Your task to perform on an android device: install app "Airtel Thanks" Image 0: 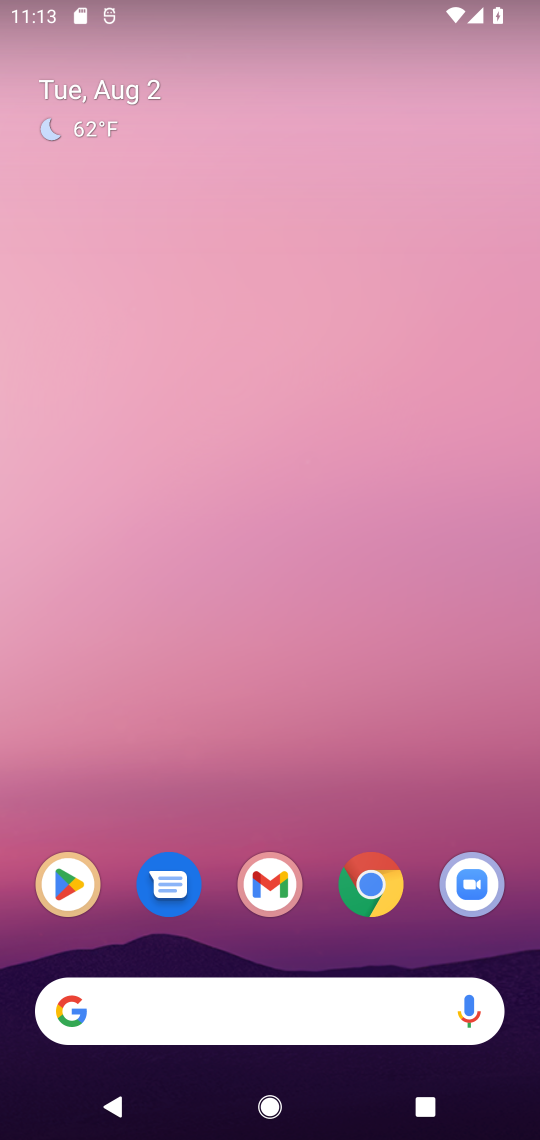
Step 0: click (73, 883)
Your task to perform on an android device: install app "Airtel Thanks" Image 1: 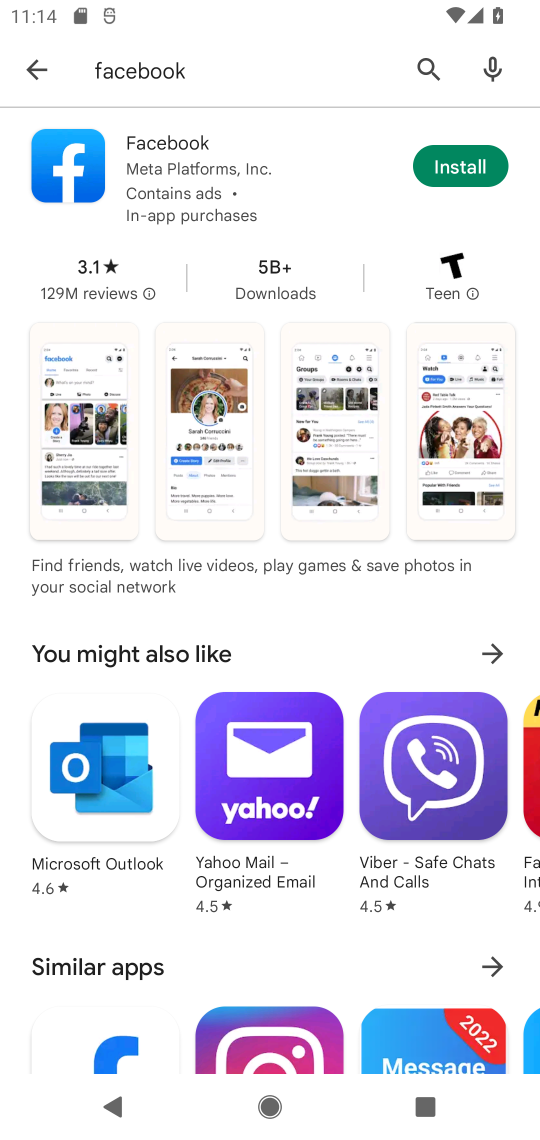
Step 1: click (223, 57)
Your task to perform on an android device: install app "Airtel Thanks" Image 2: 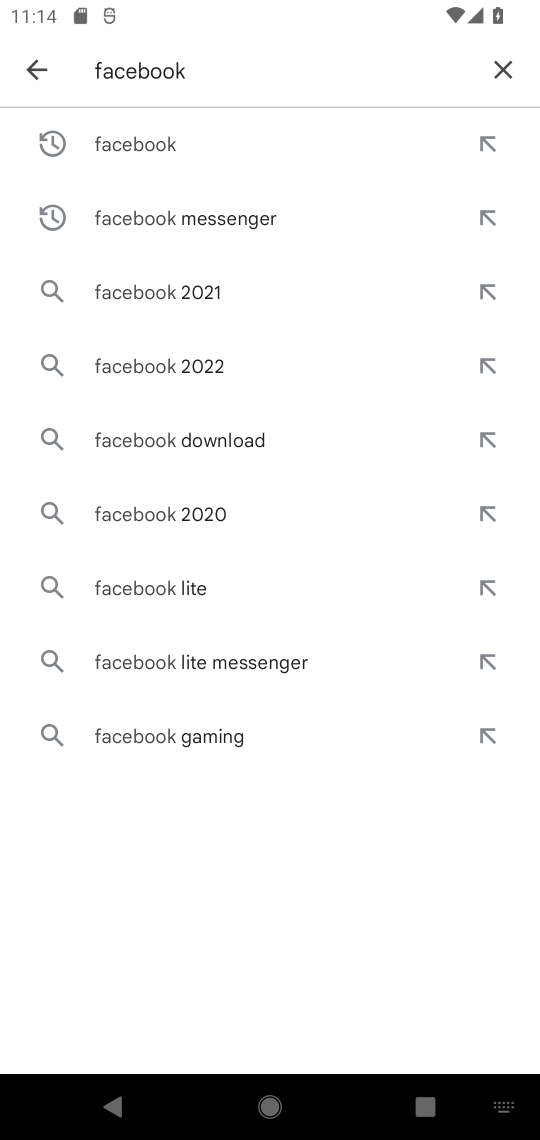
Step 2: click (504, 69)
Your task to perform on an android device: install app "Airtel Thanks" Image 3: 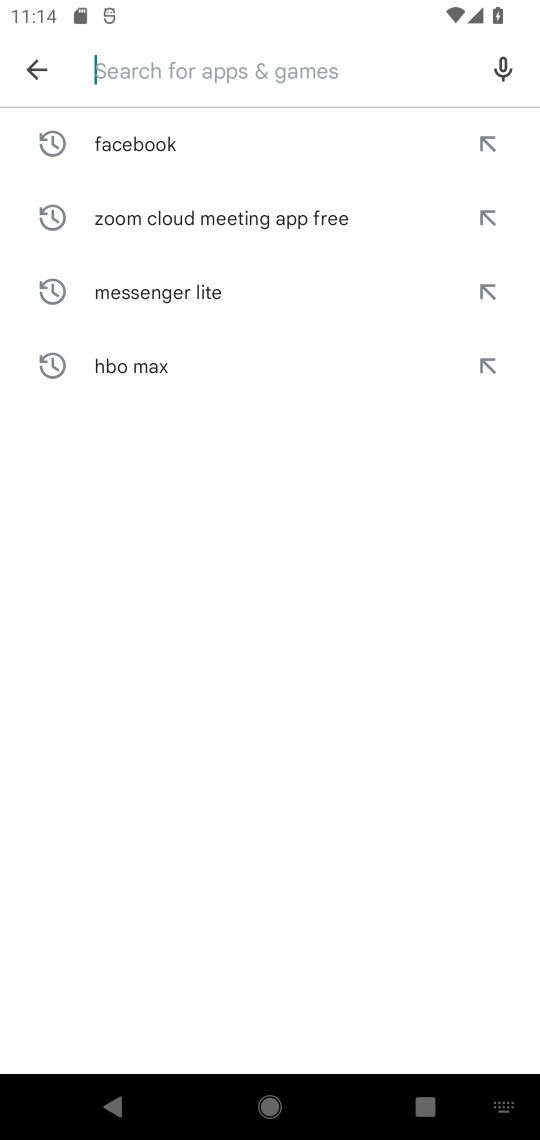
Step 3: type "Airtel Thanks"
Your task to perform on an android device: install app "Airtel Thanks" Image 4: 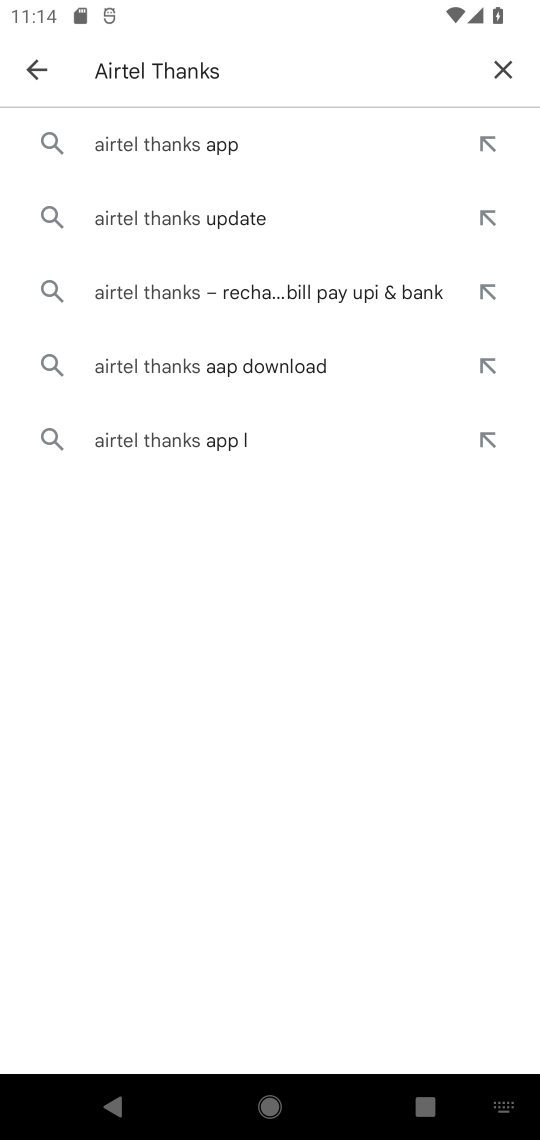
Step 4: click (154, 146)
Your task to perform on an android device: install app "Airtel Thanks" Image 5: 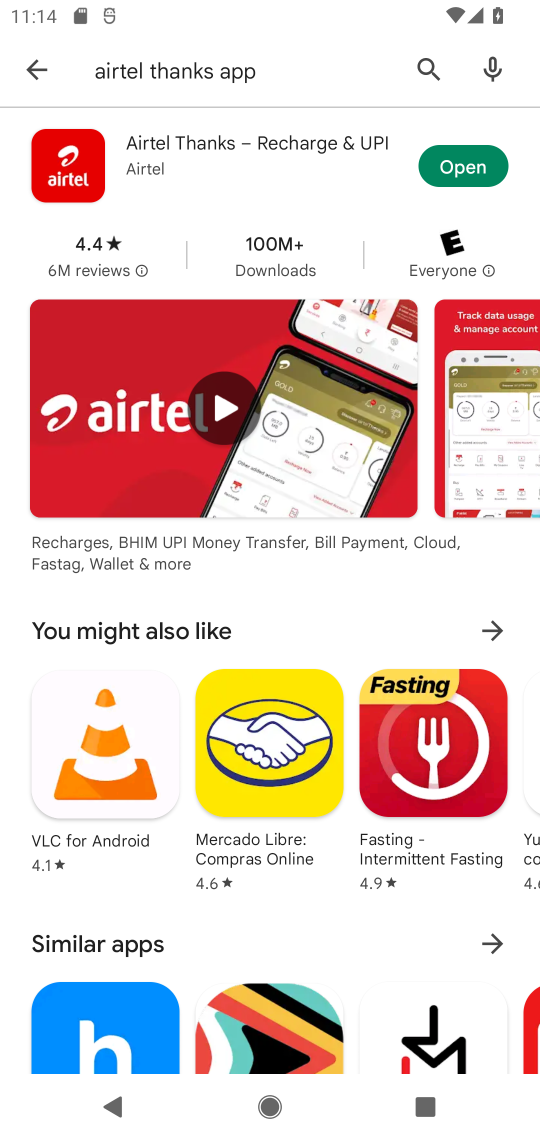
Step 5: click (93, 157)
Your task to perform on an android device: install app "Airtel Thanks" Image 6: 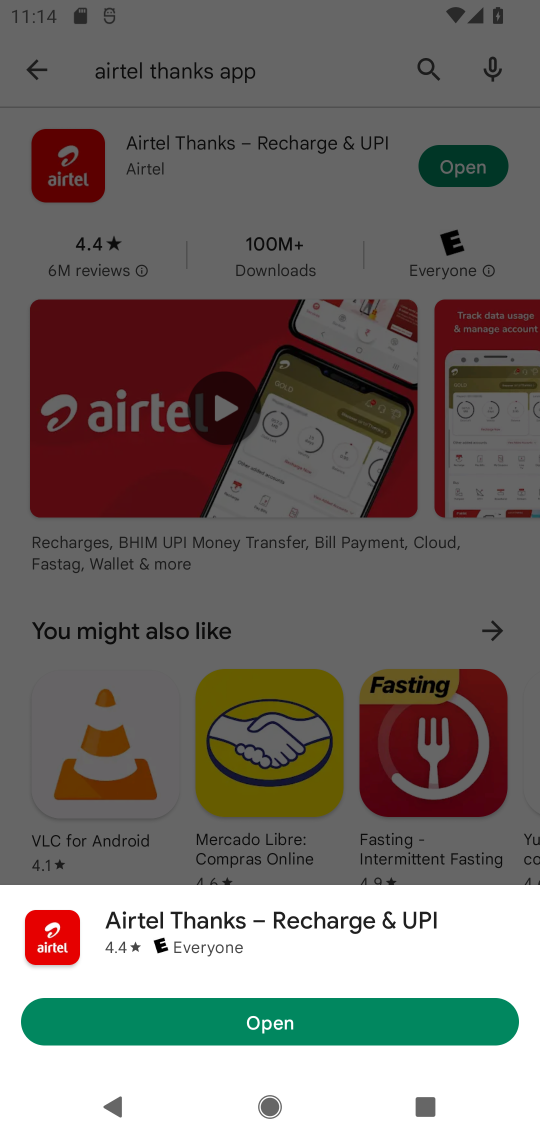
Step 6: task complete